Your task to perform on an android device: Go to CNN.com Image 0: 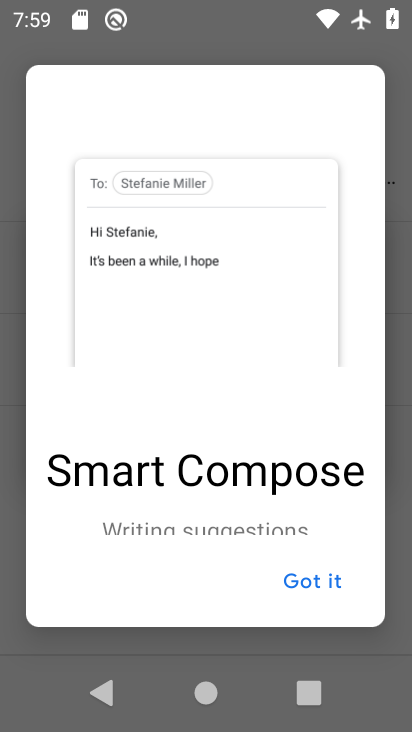
Step 0: press home button
Your task to perform on an android device: Go to CNN.com Image 1: 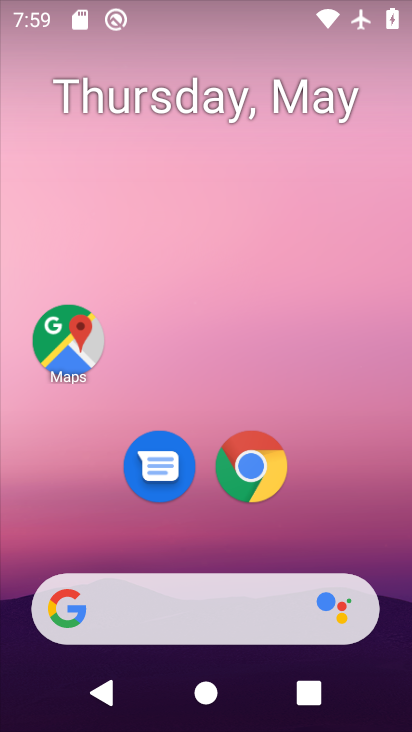
Step 1: click (201, 613)
Your task to perform on an android device: Go to CNN.com Image 2: 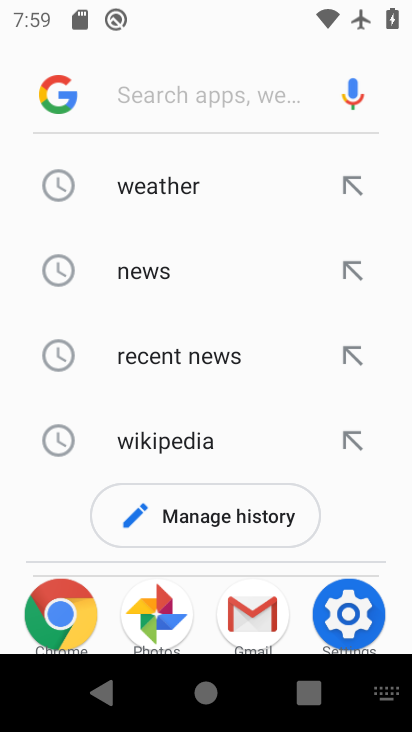
Step 2: type "cnn.com"
Your task to perform on an android device: Go to CNN.com Image 3: 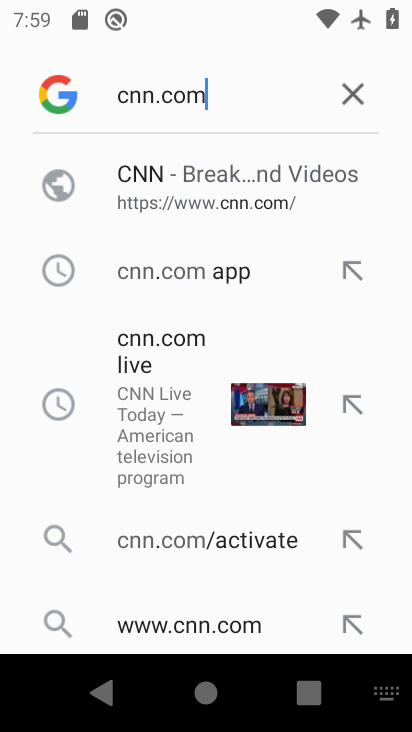
Step 3: click (265, 181)
Your task to perform on an android device: Go to CNN.com Image 4: 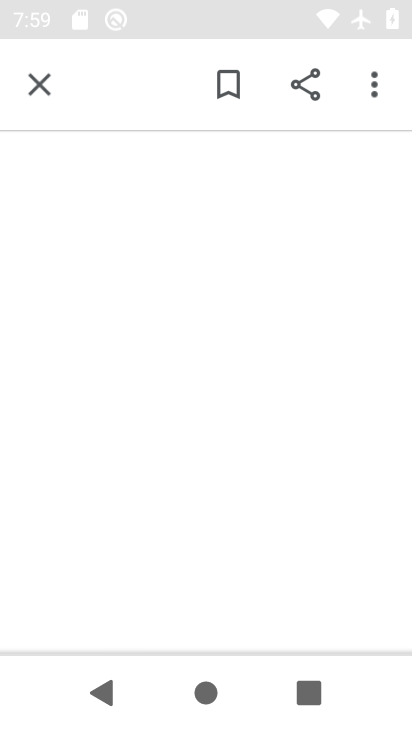
Step 4: task complete